Your task to perform on an android device: turn pop-ups on in chrome Image 0: 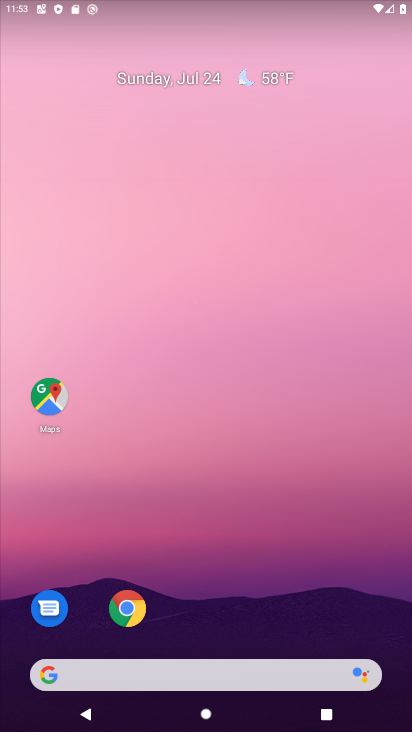
Step 0: click (137, 601)
Your task to perform on an android device: turn pop-ups on in chrome Image 1: 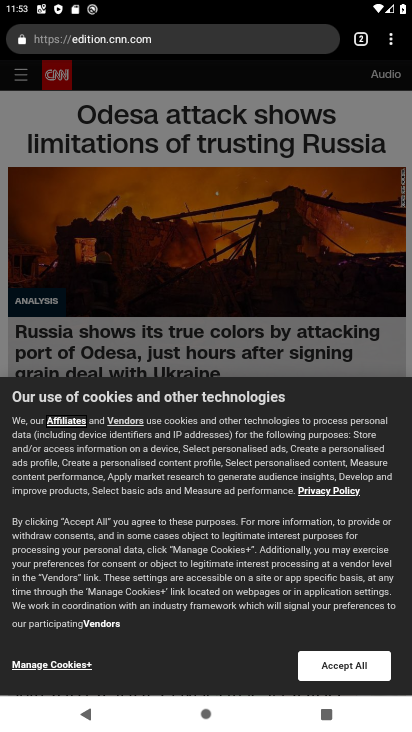
Step 1: drag from (394, 35) to (294, 432)
Your task to perform on an android device: turn pop-ups on in chrome Image 2: 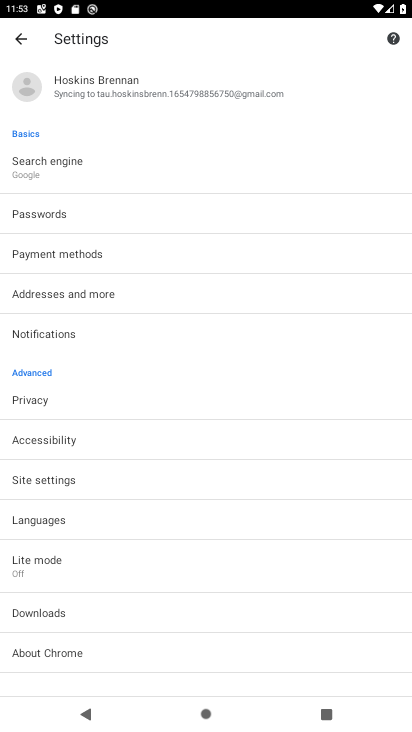
Step 2: click (105, 474)
Your task to perform on an android device: turn pop-ups on in chrome Image 3: 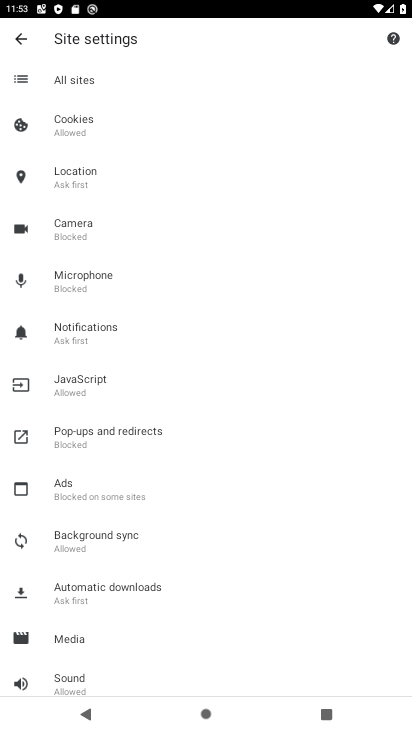
Step 3: click (97, 433)
Your task to perform on an android device: turn pop-ups on in chrome Image 4: 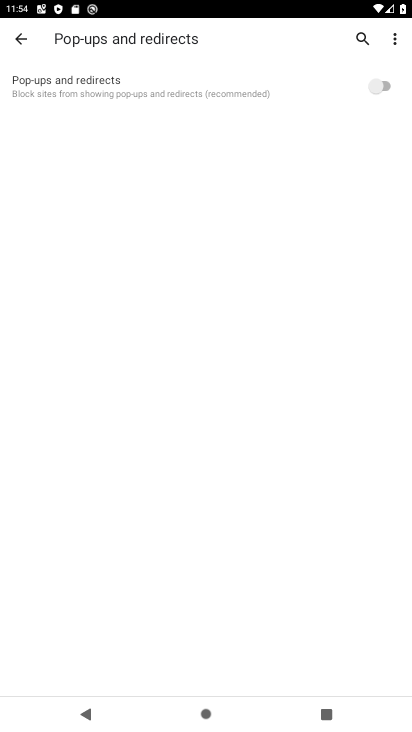
Step 4: click (377, 96)
Your task to perform on an android device: turn pop-ups on in chrome Image 5: 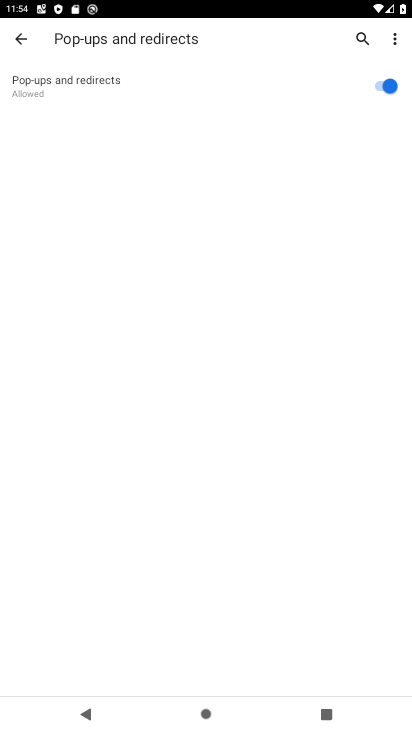
Step 5: click (389, 88)
Your task to perform on an android device: turn pop-ups on in chrome Image 6: 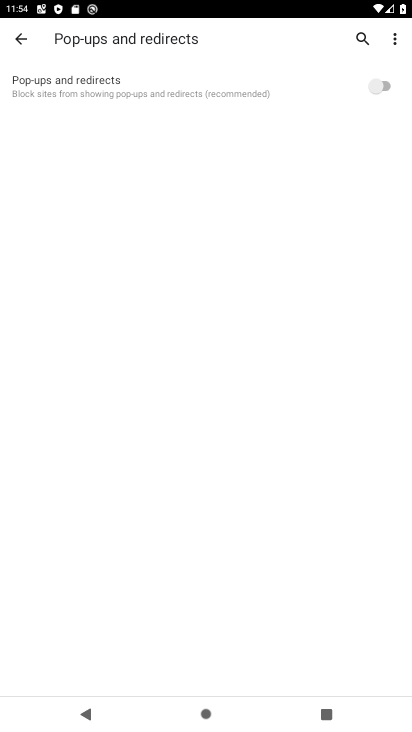
Step 6: click (373, 91)
Your task to perform on an android device: turn pop-ups on in chrome Image 7: 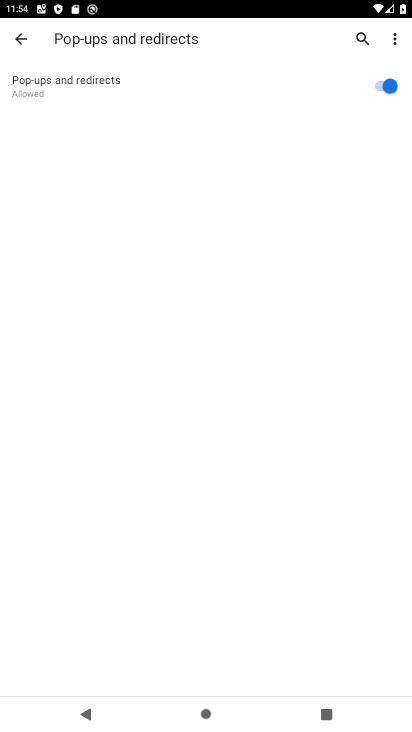
Step 7: task complete